Your task to perform on an android device: delete location history Image 0: 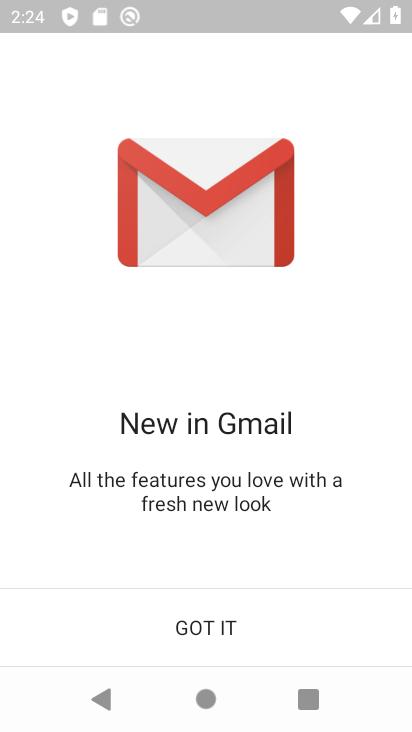
Step 0: press home button
Your task to perform on an android device: delete location history Image 1: 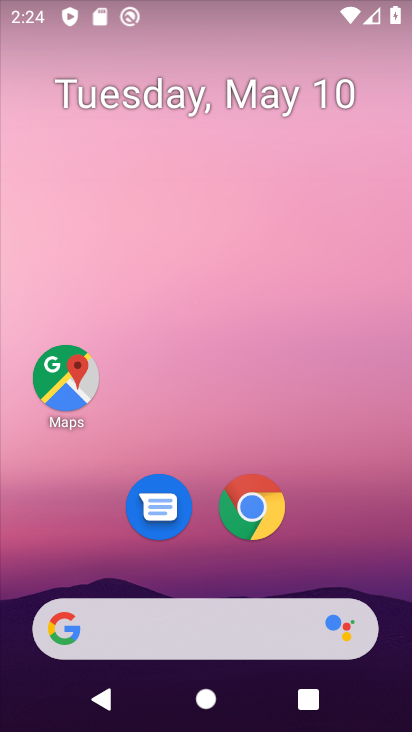
Step 1: drag from (225, 717) to (226, 162)
Your task to perform on an android device: delete location history Image 2: 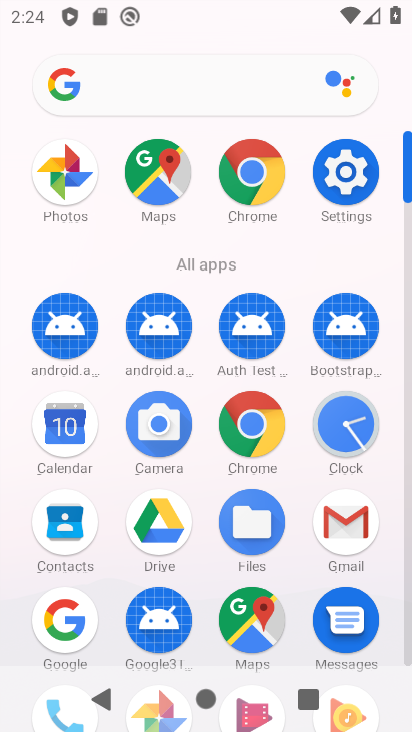
Step 2: drag from (294, 607) to (257, 228)
Your task to perform on an android device: delete location history Image 3: 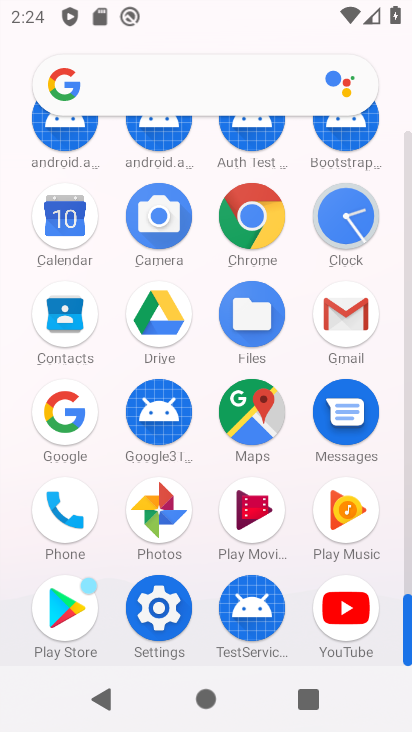
Step 3: click (249, 400)
Your task to perform on an android device: delete location history Image 4: 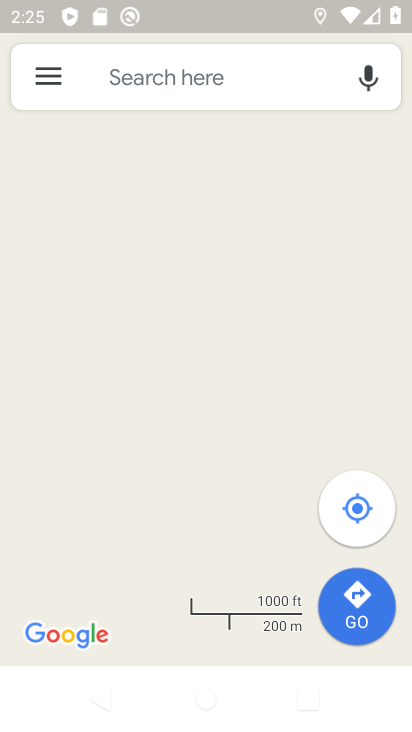
Step 4: click (46, 73)
Your task to perform on an android device: delete location history Image 5: 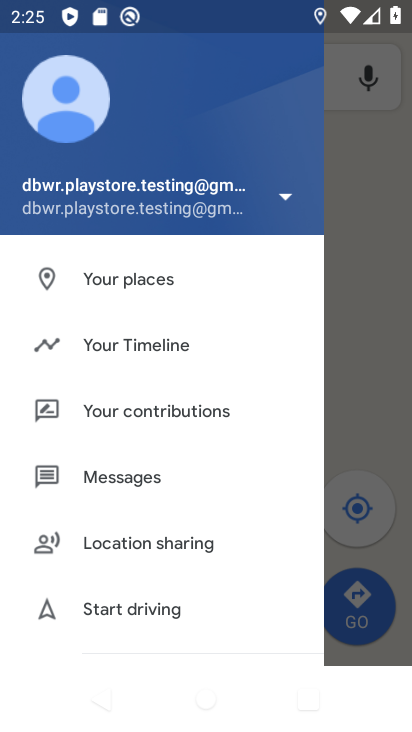
Step 5: click (118, 340)
Your task to perform on an android device: delete location history Image 6: 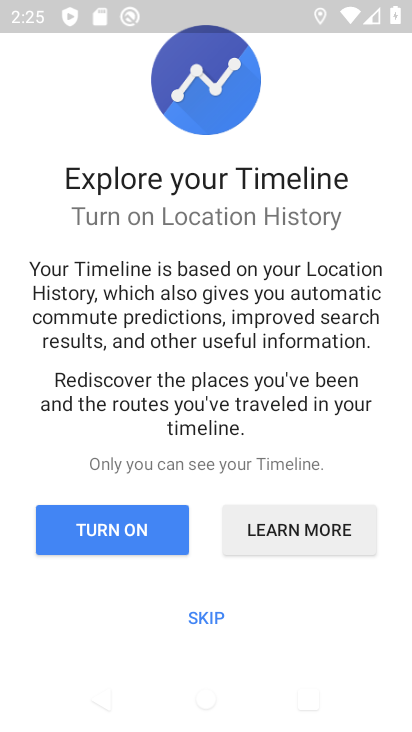
Step 6: click (205, 614)
Your task to perform on an android device: delete location history Image 7: 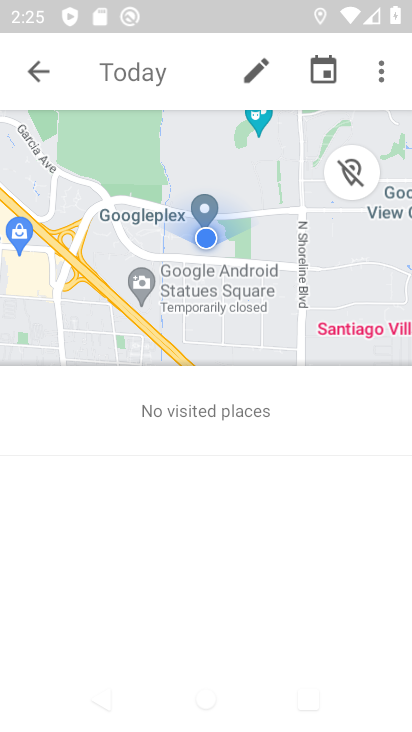
Step 7: click (382, 70)
Your task to perform on an android device: delete location history Image 8: 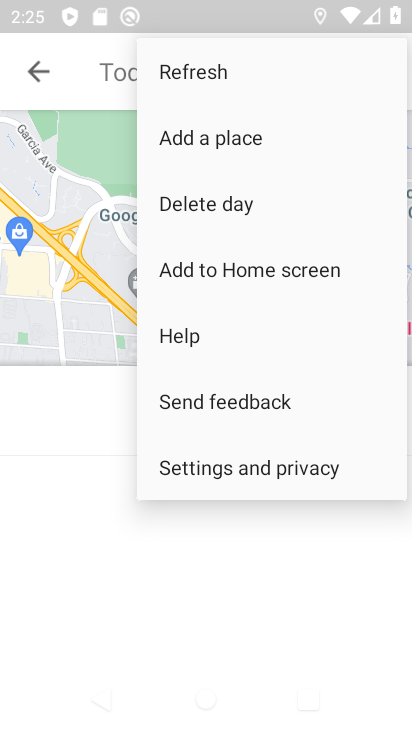
Step 8: click (218, 465)
Your task to perform on an android device: delete location history Image 9: 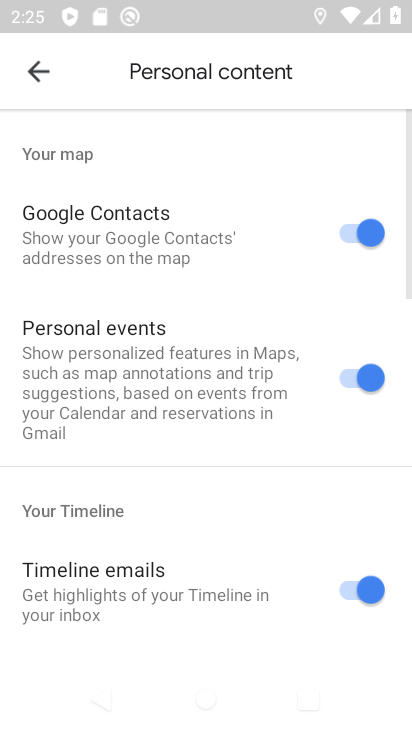
Step 9: drag from (187, 628) to (189, 188)
Your task to perform on an android device: delete location history Image 10: 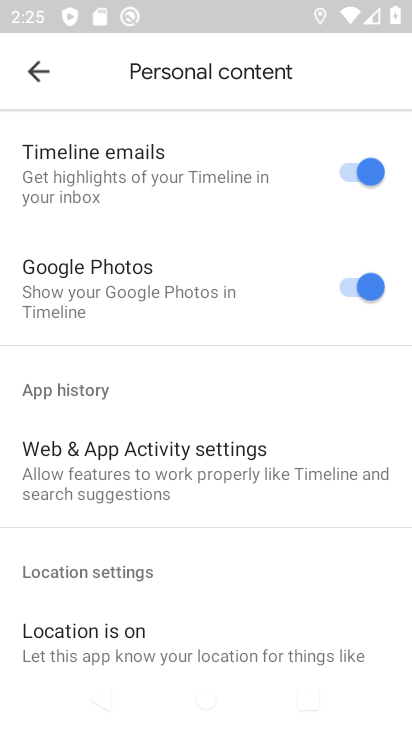
Step 10: drag from (145, 637) to (145, 206)
Your task to perform on an android device: delete location history Image 11: 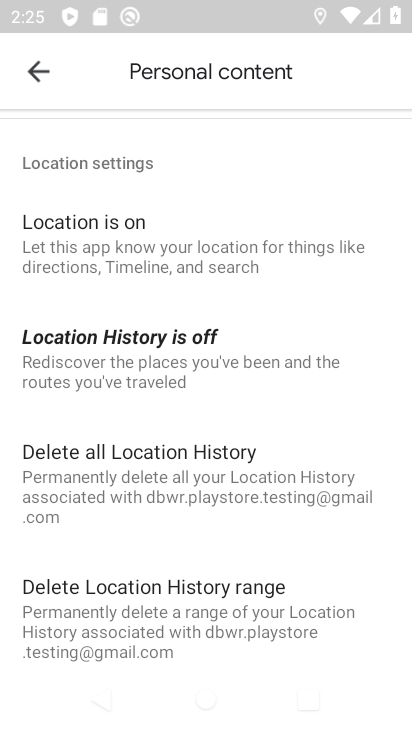
Step 11: click (124, 477)
Your task to perform on an android device: delete location history Image 12: 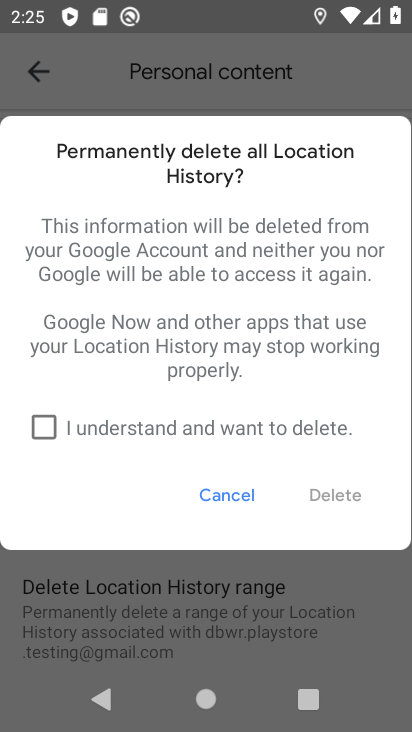
Step 12: click (42, 427)
Your task to perform on an android device: delete location history Image 13: 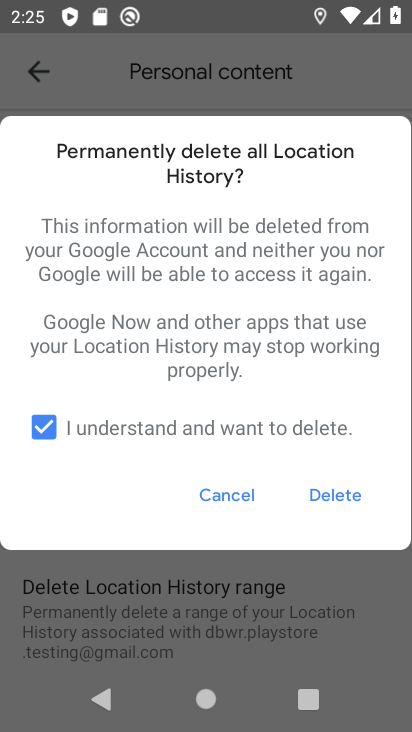
Step 13: click (325, 494)
Your task to perform on an android device: delete location history Image 14: 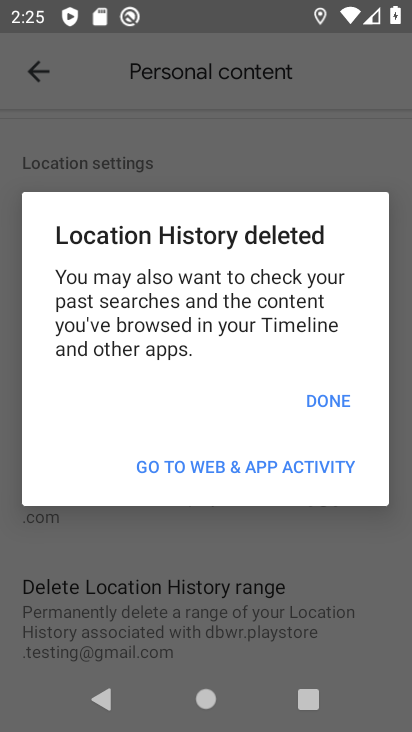
Step 14: click (325, 392)
Your task to perform on an android device: delete location history Image 15: 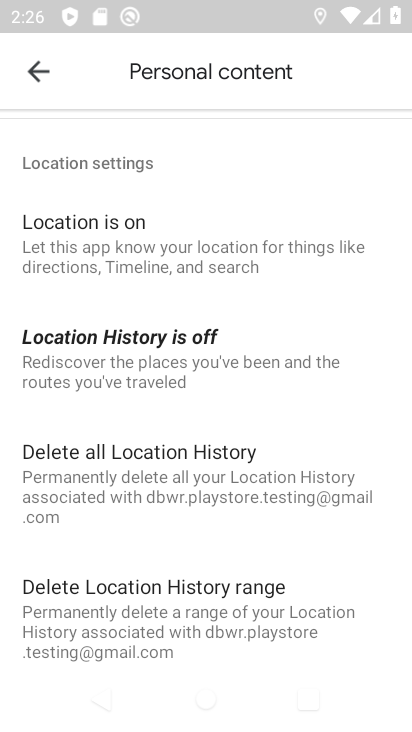
Step 15: task complete